Your task to perform on an android device: manage bookmarks in the chrome app Image 0: 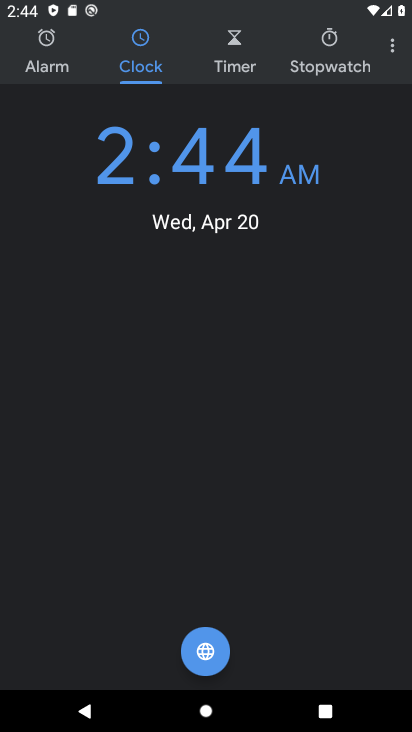
Step 0: press home button
Your task to perform on an android device: manage bookmarks in the chrome app Image 1: 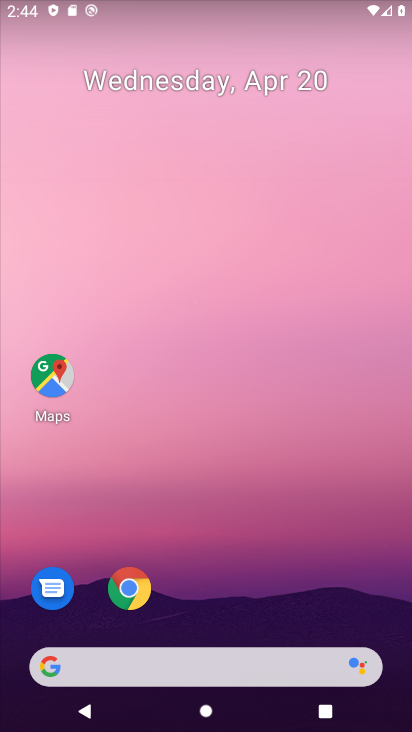
Step 1: click (132, 586)
Your task to perform on an android device: manage bookmarks in the chrome app Image 2: 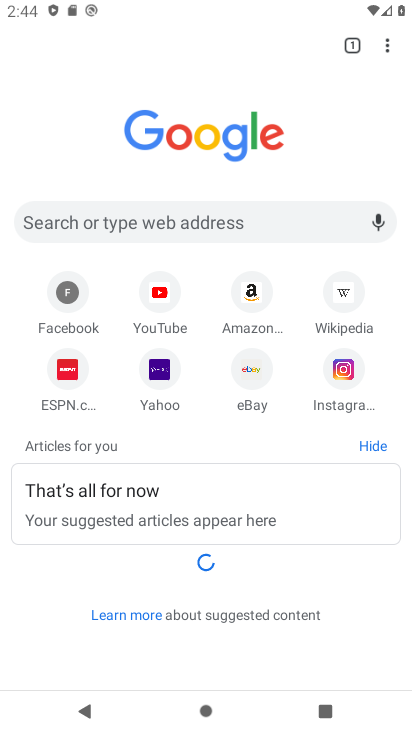
Step 2: click (384, 42)
Your task to perform on an android device: manage bookmarks in the chrome app Image 3: 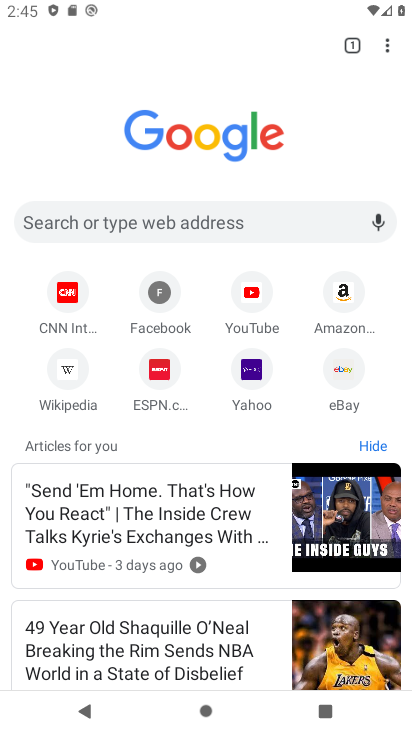
Step 3: click (384, 42)
Your task to perform on an android device: manage bookmarks in the chrome app Image 4: 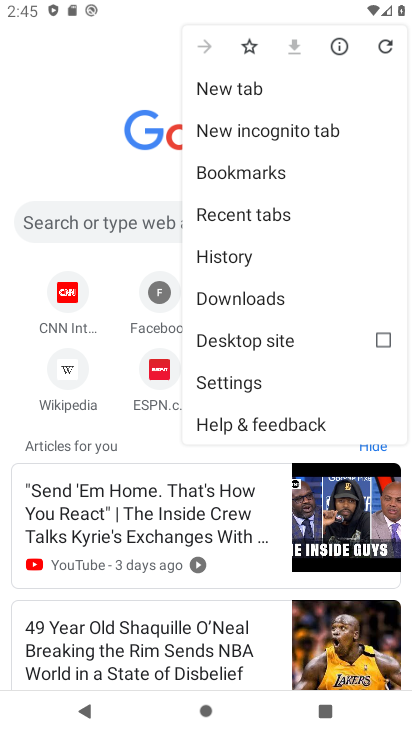
Step 4: click (268, 174)
Your task to perform on an android device: manage bookmarks in the chrome app Image 5: 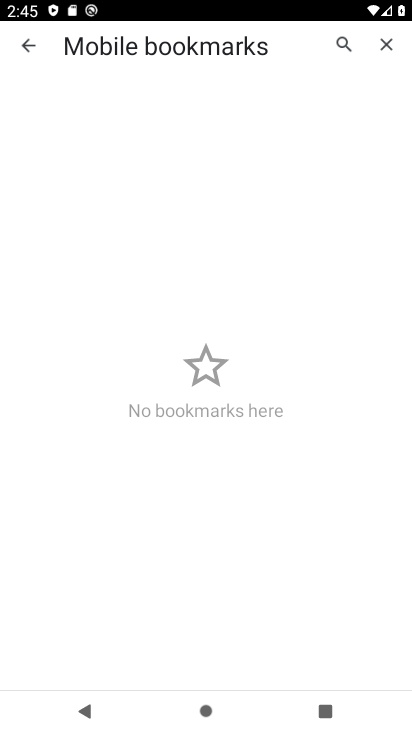
Step 5: task complete